Your task to perform on an android device: Go to Google Image 0: 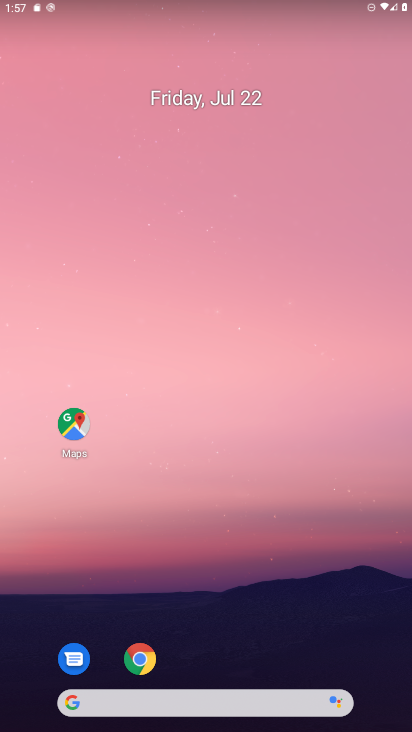
Step 0: drag from (186, 700) to (196, 71)
Your task to perform on an android device: Go to Google Image 1: 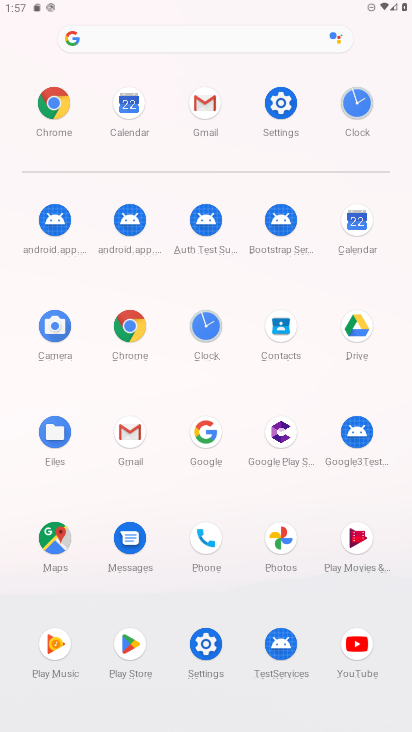
Step 1: click (206, 433)
Your task to perform on an android device: Go to Google Image 2: 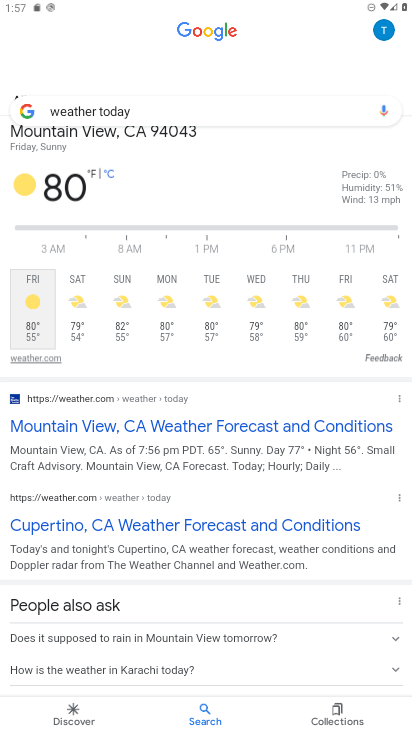
Step 2: task complete